Your task to perform on an android device: change notification settings in the gmail app Image 0: 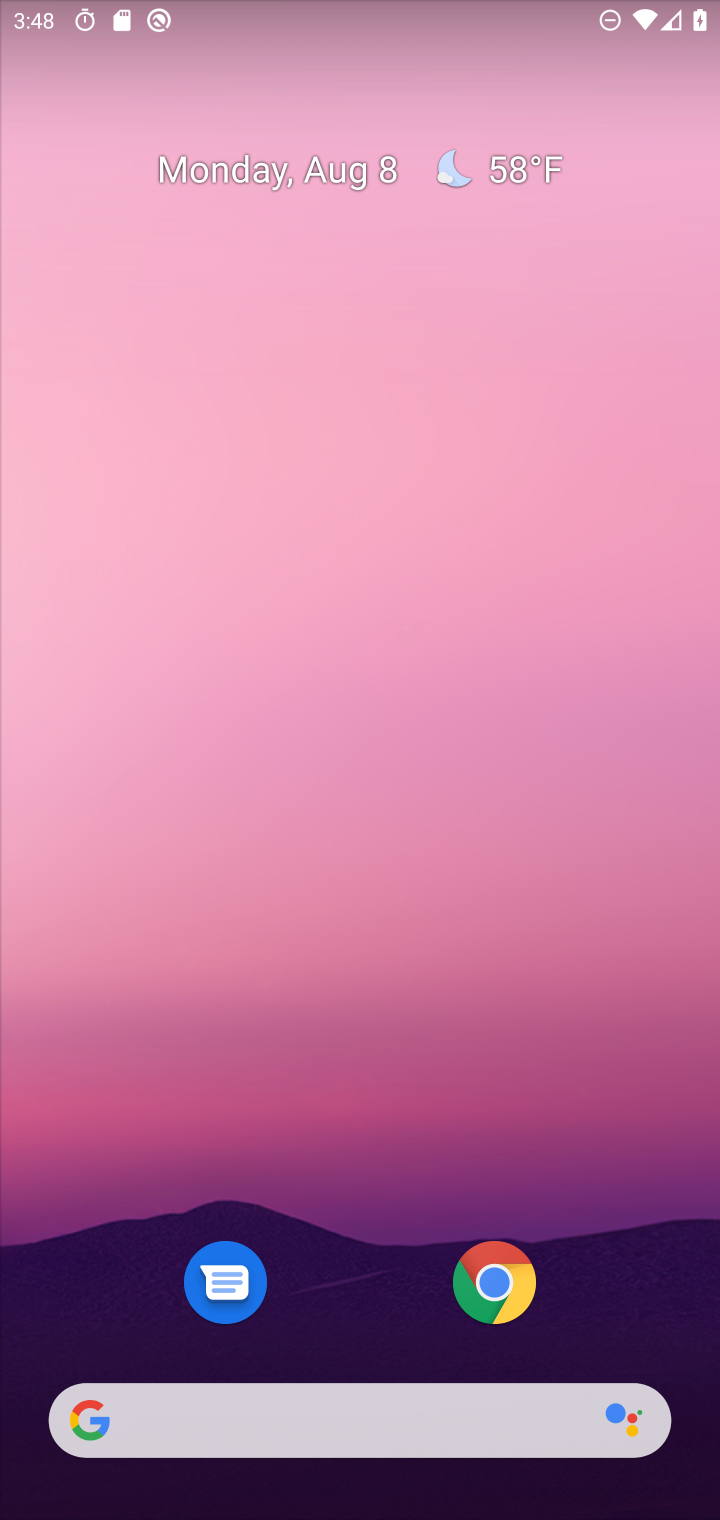
Step 0: drag from (352, 1021) to (414, 247)
Your task to perform on an android device: change notification settings in the gmail app Image 1: 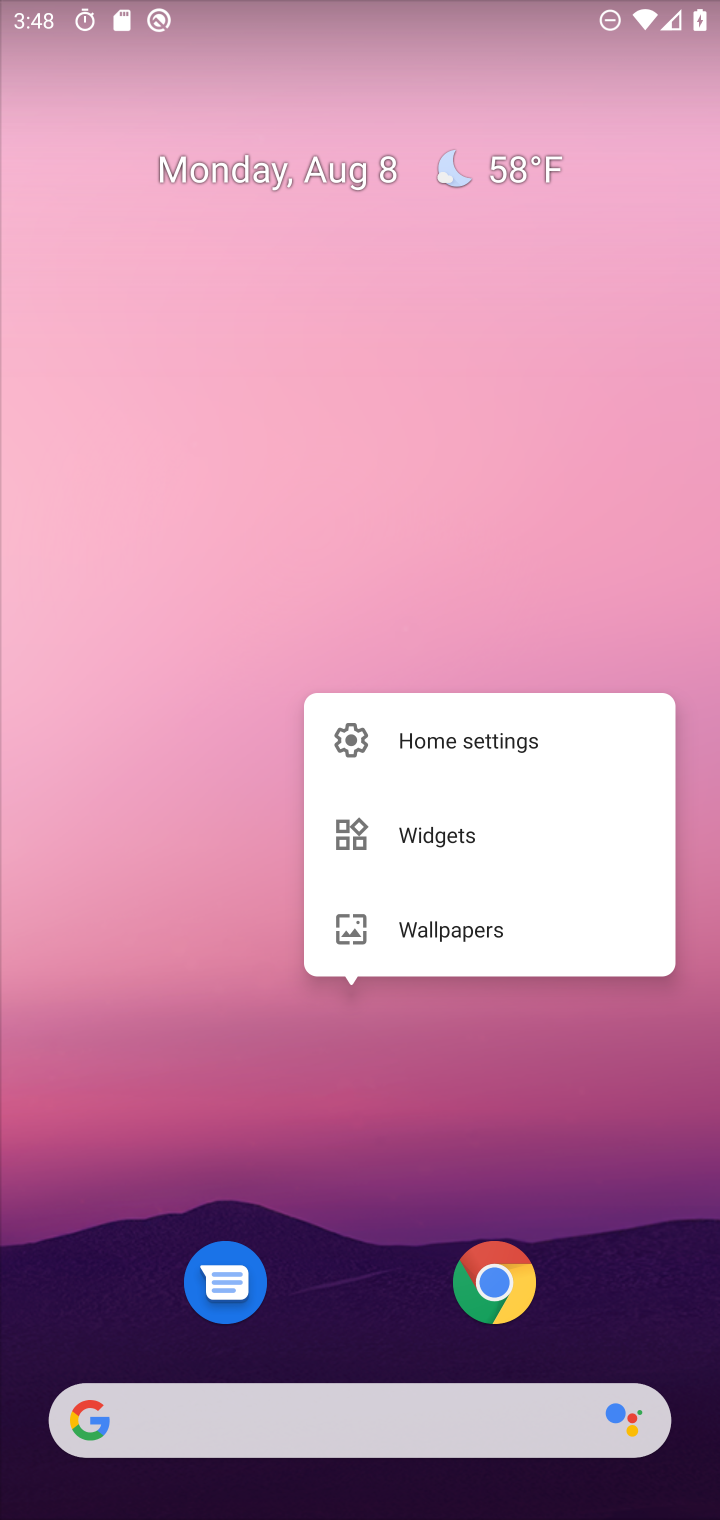
Step 1: click (136, 824)
Your task to perform on an android device: change notification settings in the gmail app Image 2: 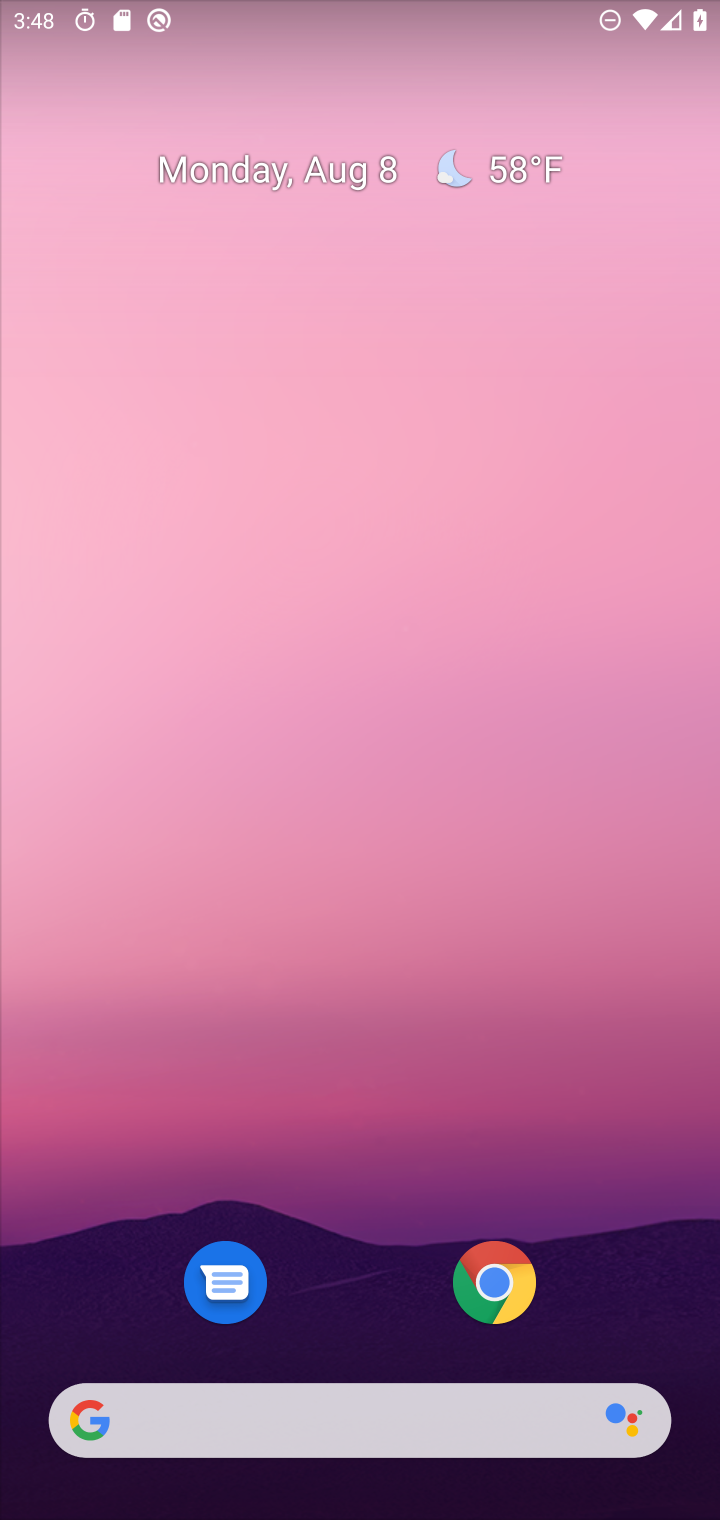
Step 2: drag from (368, 972) to (468, 231)
Your task to perform on an android device: change notification settings in the gmail app Image 3: 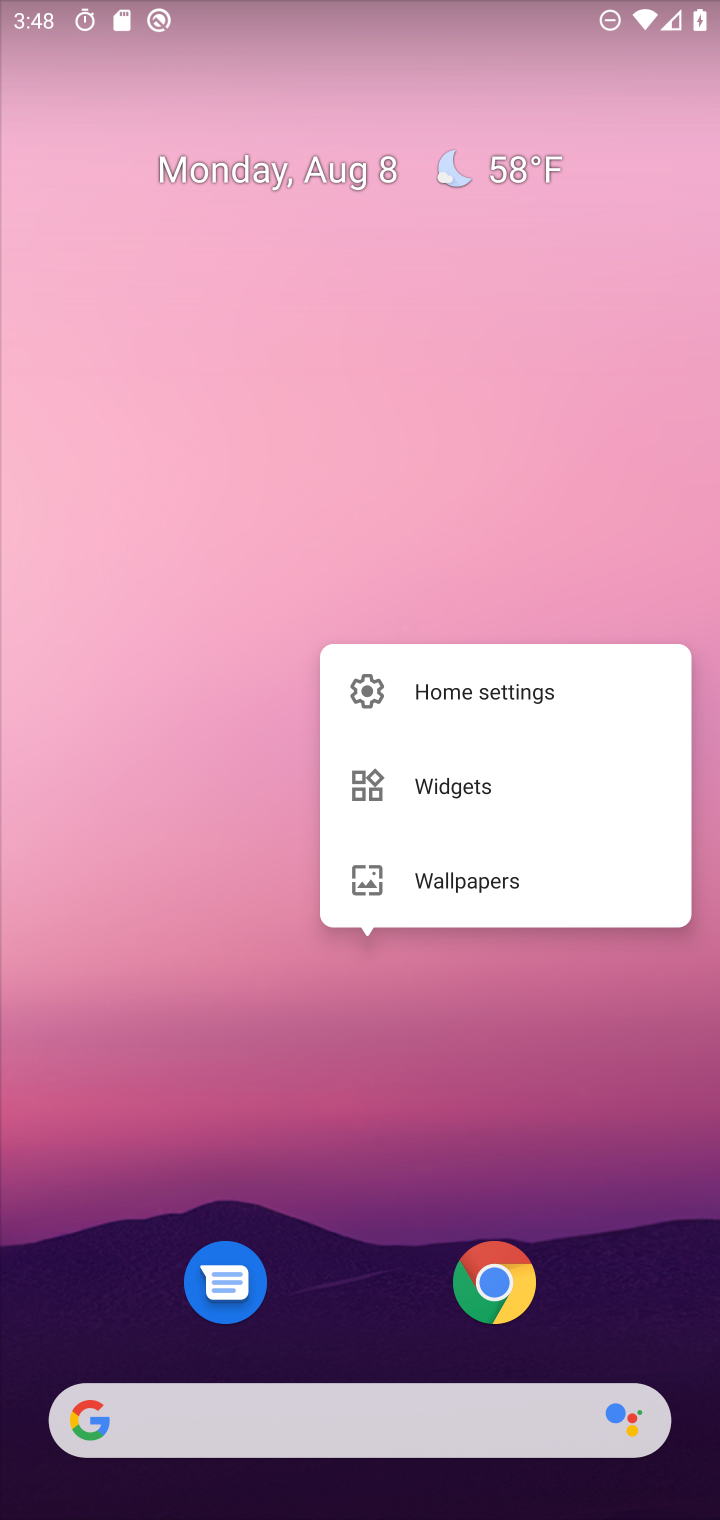
Step 3: click (203, 1042)
Your task to perform on an android device: change notification settings in the gmail app Image 4: 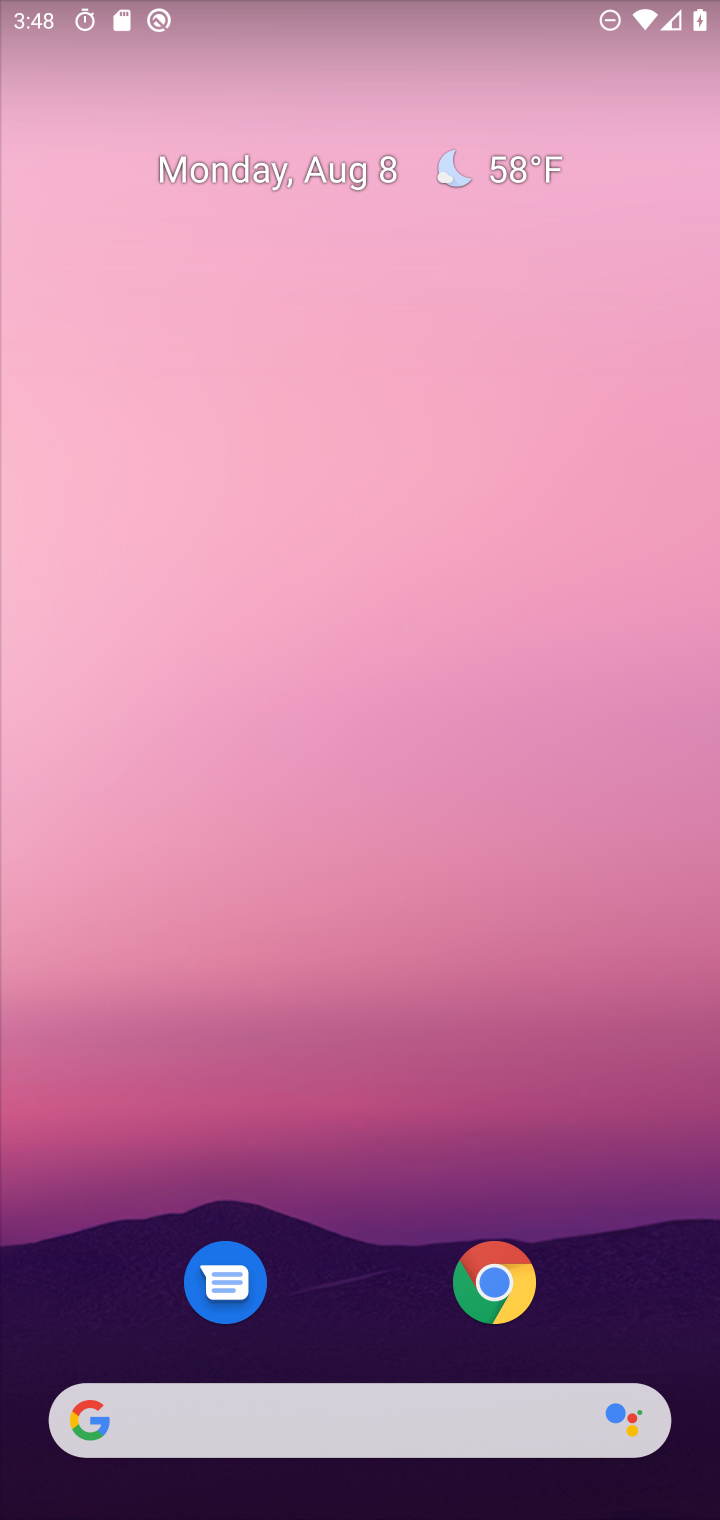
Step 4: drag from (419, 1061) to (585, 250)
Your task to perform on an android device: change notification settings in the gmail app Image 5: 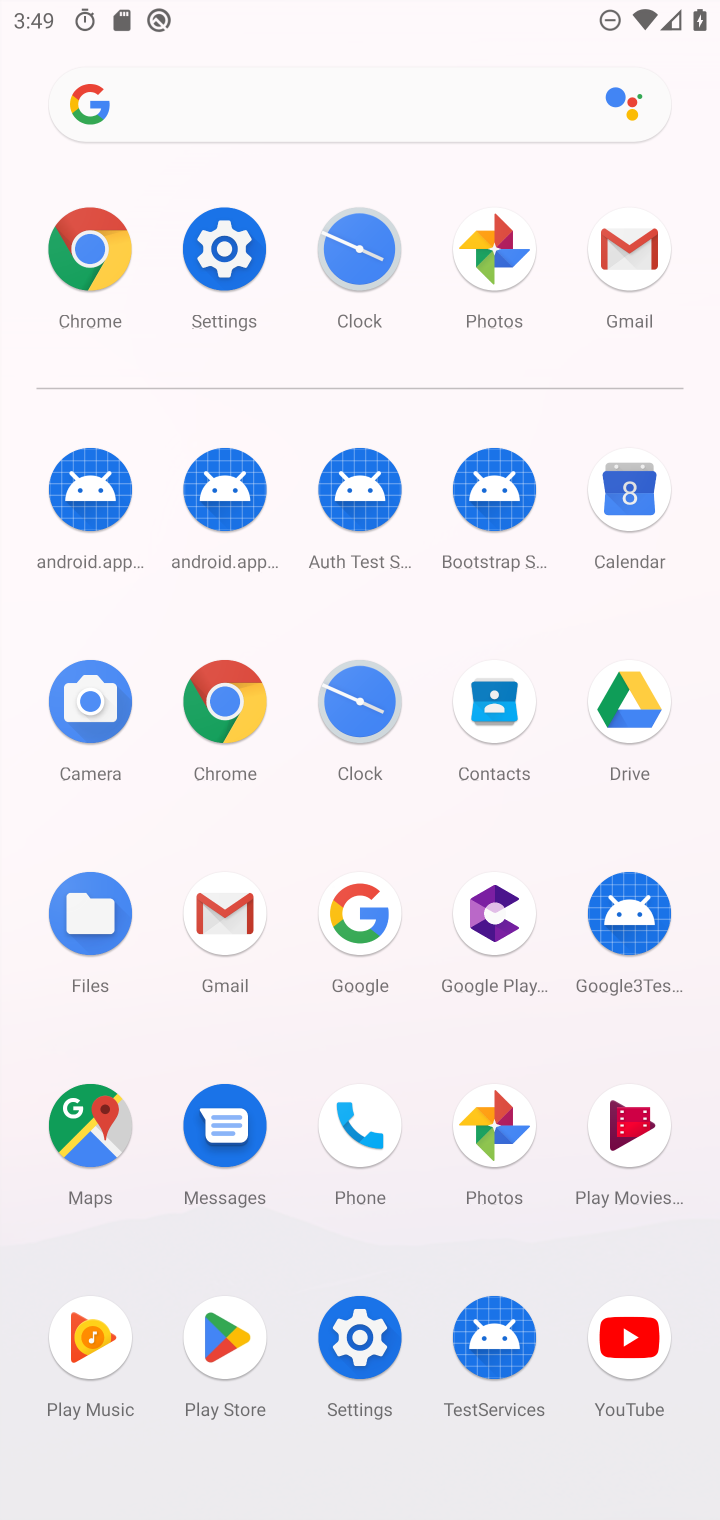
Step 5: click (209, 905)
Your task to perform on an android device: change notification settings in the gmail app Image 6: 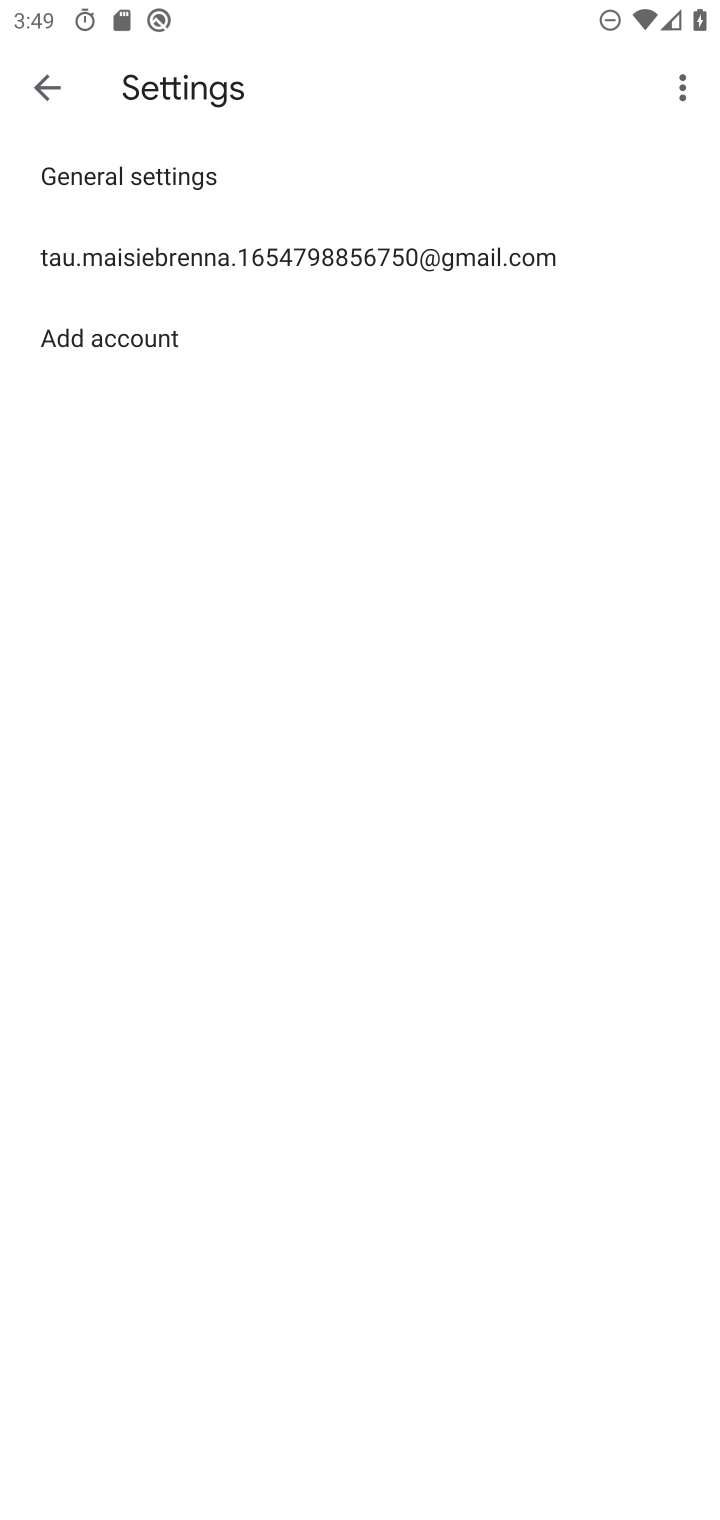
Step 6: click (257, 228)
Your task to perform on an android device: change notification settings in the gmail app Image 7: 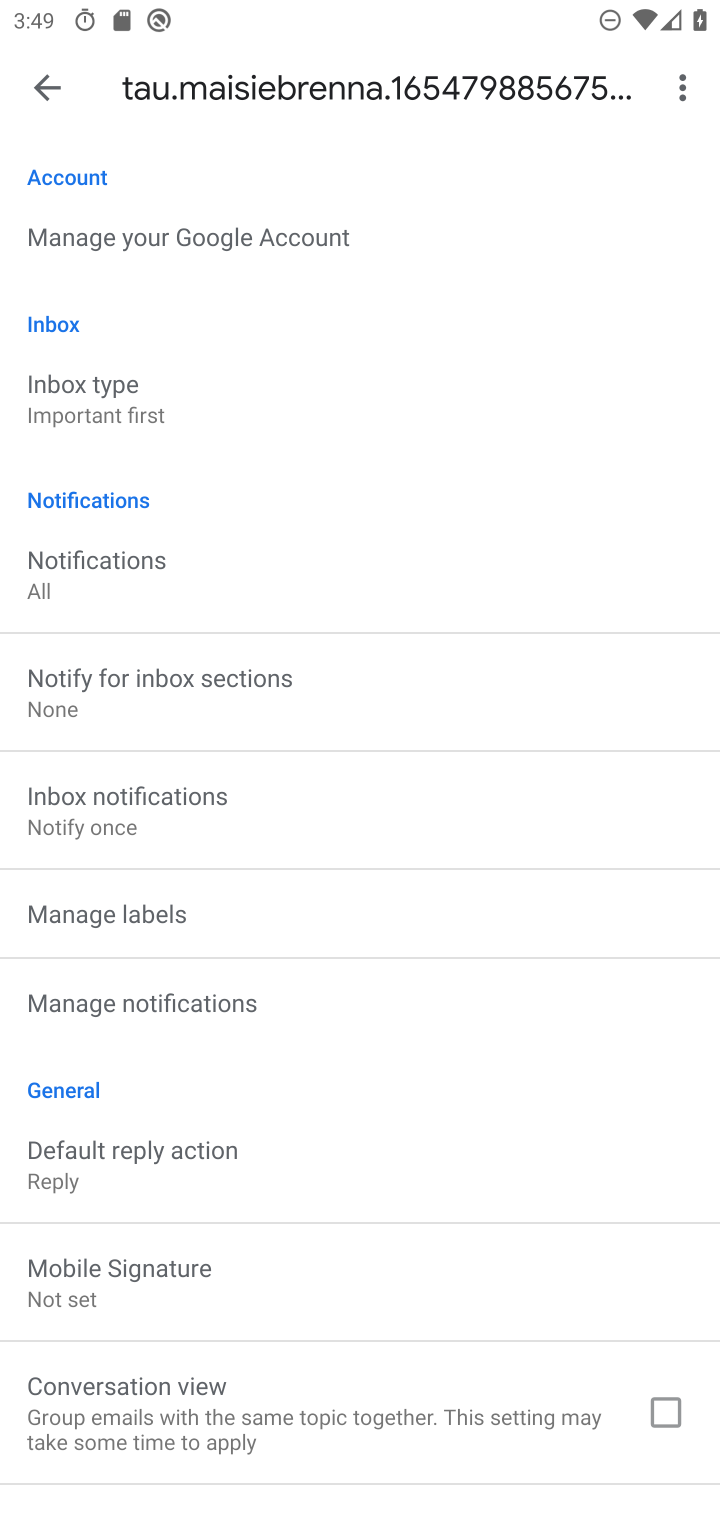
Step 7: click (137, 986)
Your task to perform on an android device: change notification settings in the gmail app Image 8: 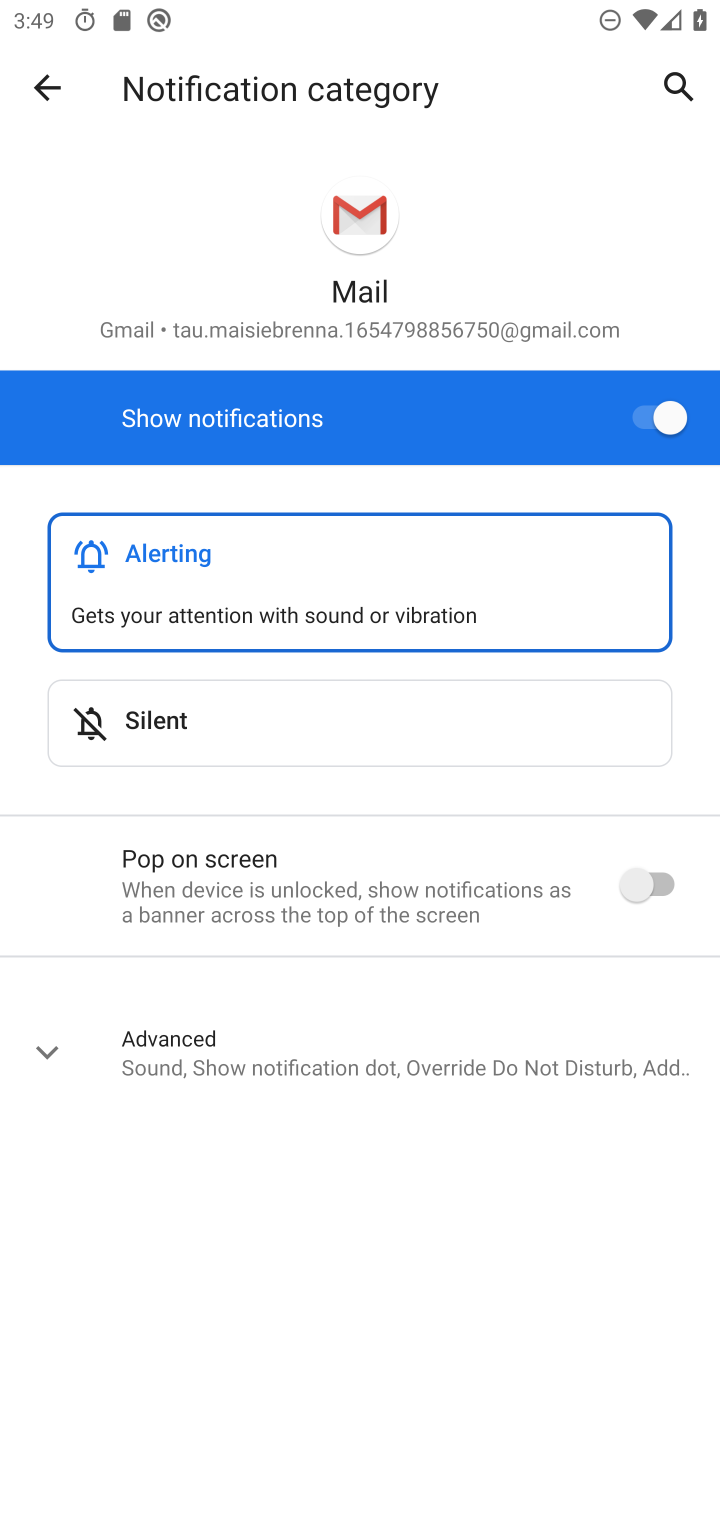
Step 8: click (659, 390)
Your task to perform on an android device: change notification settings in the gmail app Image 9: 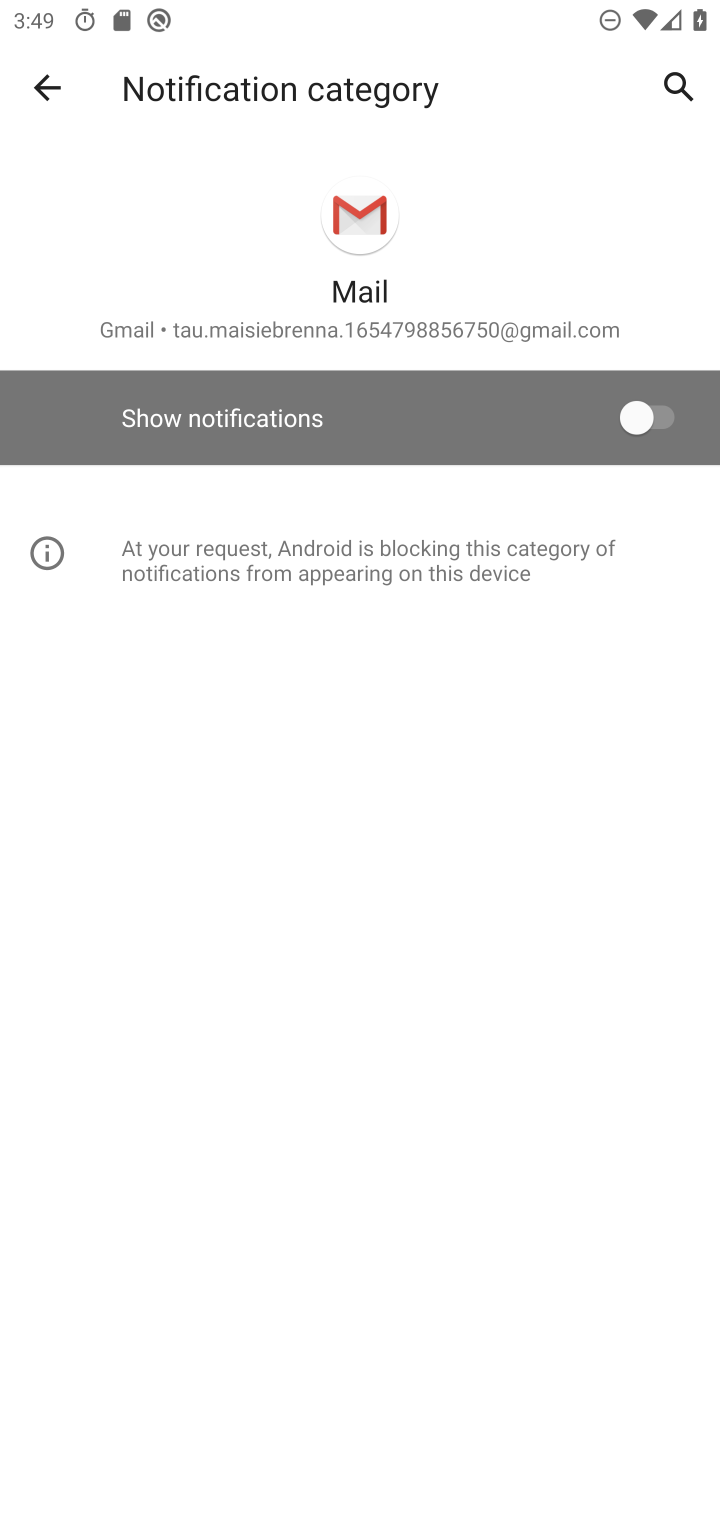
Step 9: task complete